Your task to perform on an android device: turn on airplane mode Image 0: 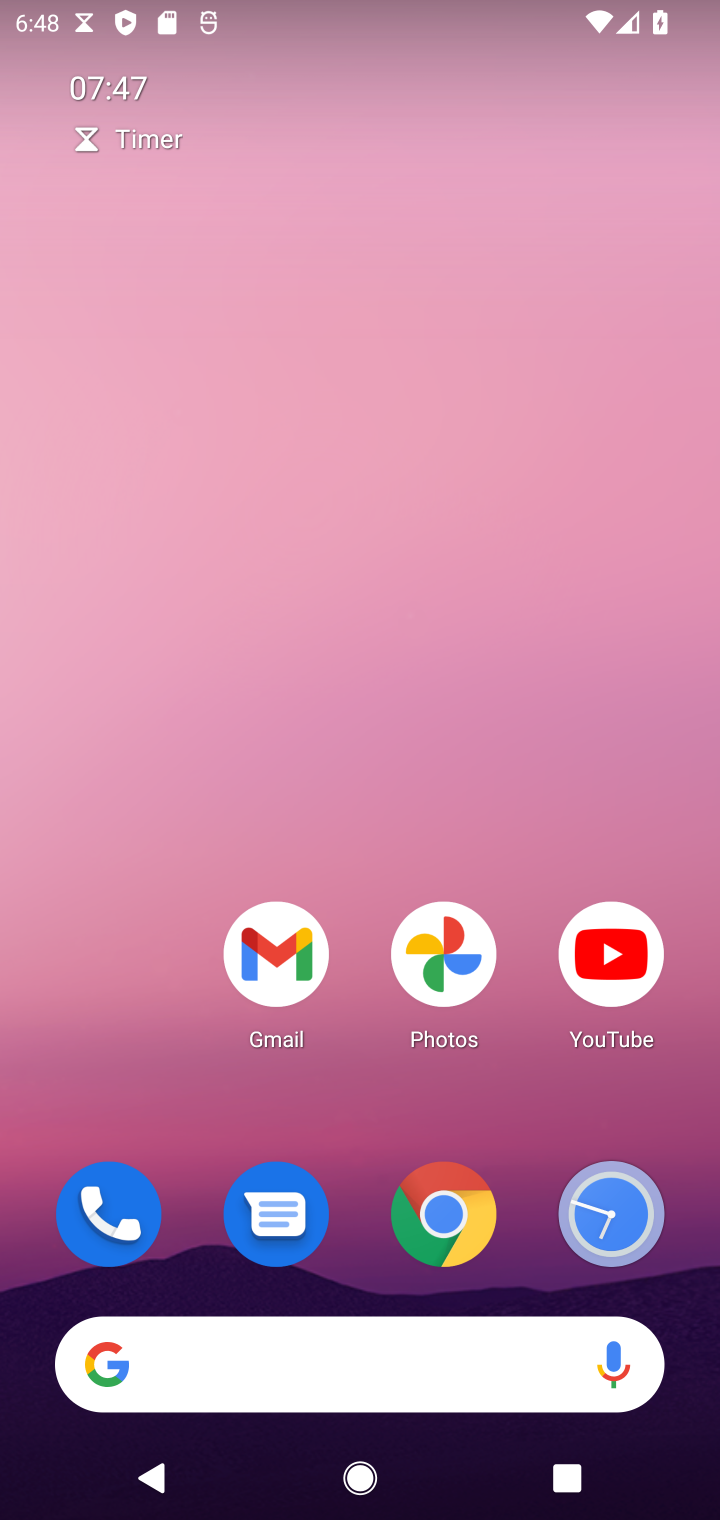
Step 0: drag from (359, 1238) to (385, 209)
Your task to perform on an android device: turn on airplane mode Image 1: 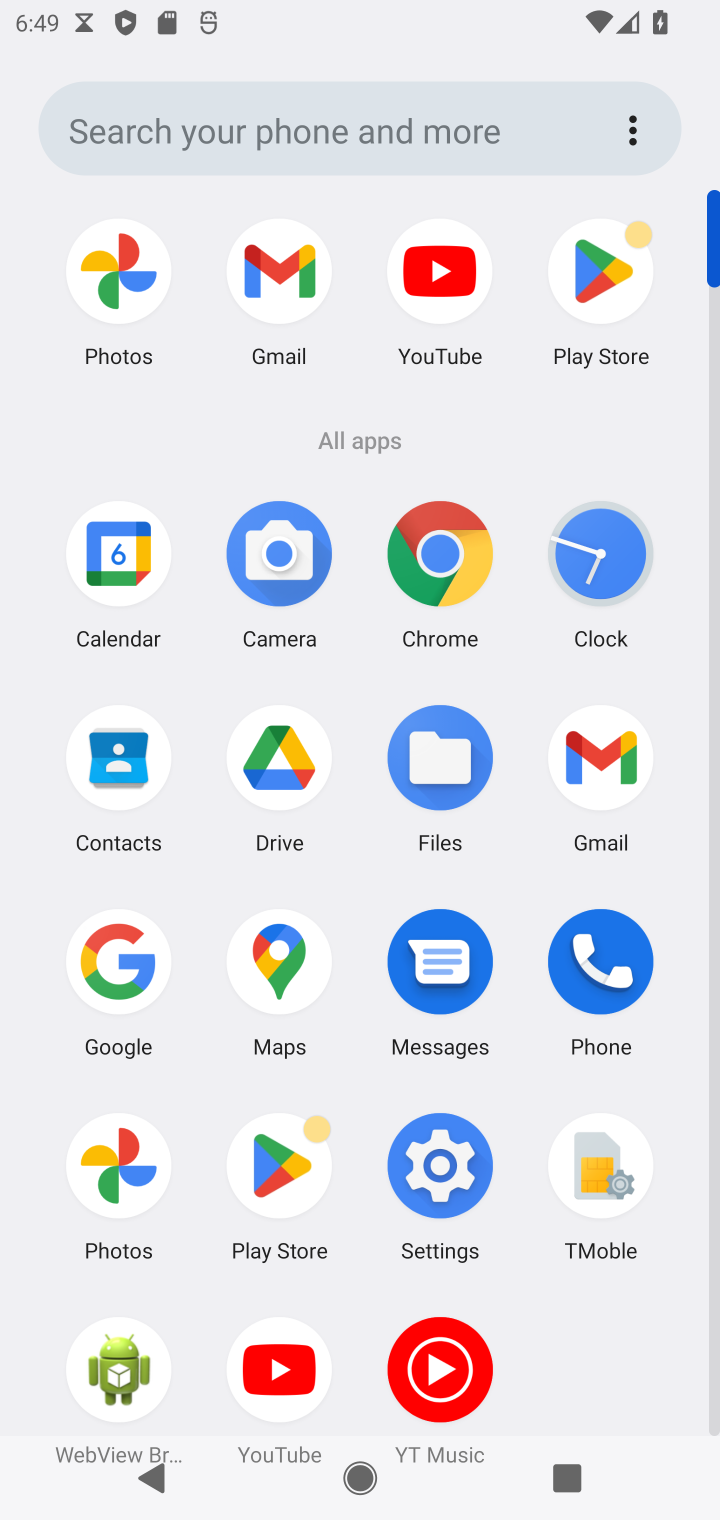
Step 1: click (452, 1199)
Your task to perform on an android device: turn on airplane mode Image 2: 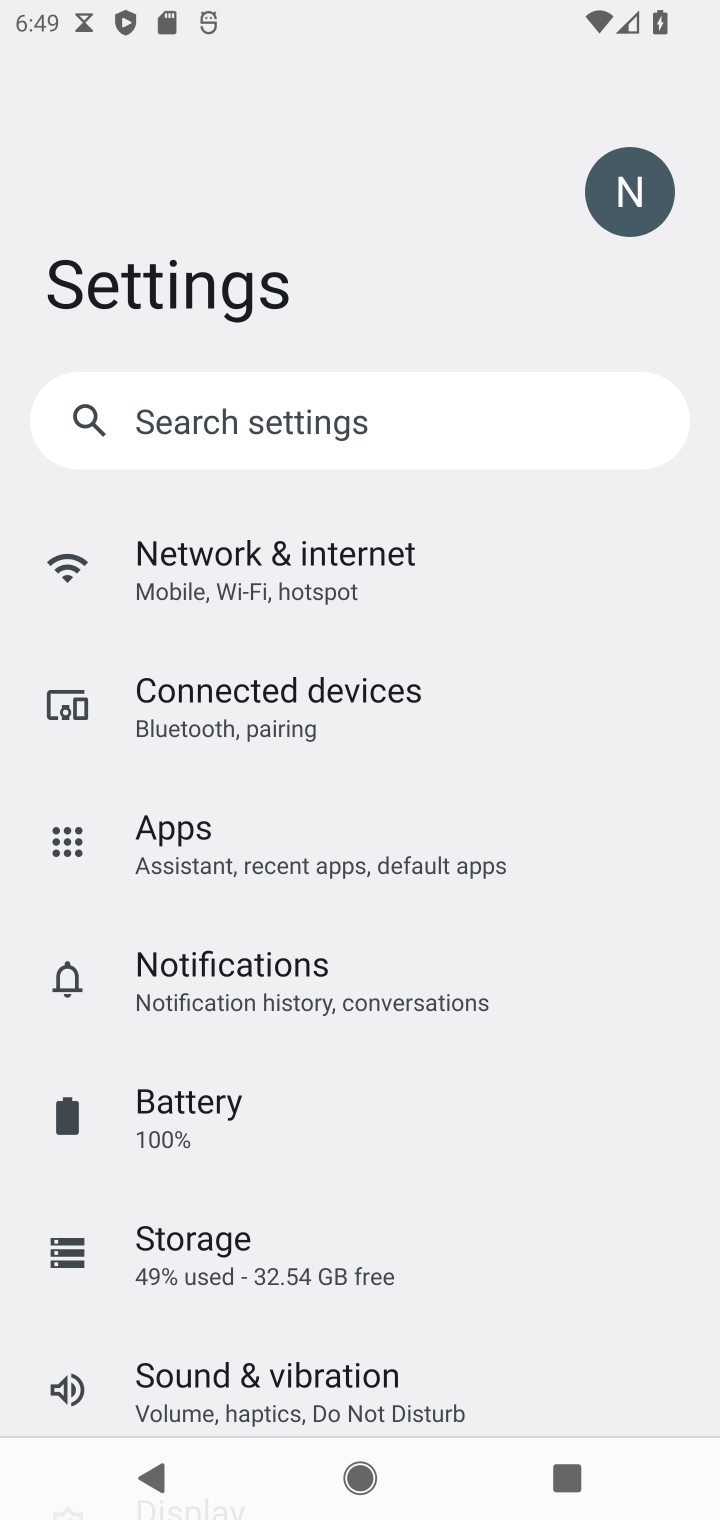
Step 2: click (322, 582)
Your task to perform on an android device: turn on airplane mode Image 3: 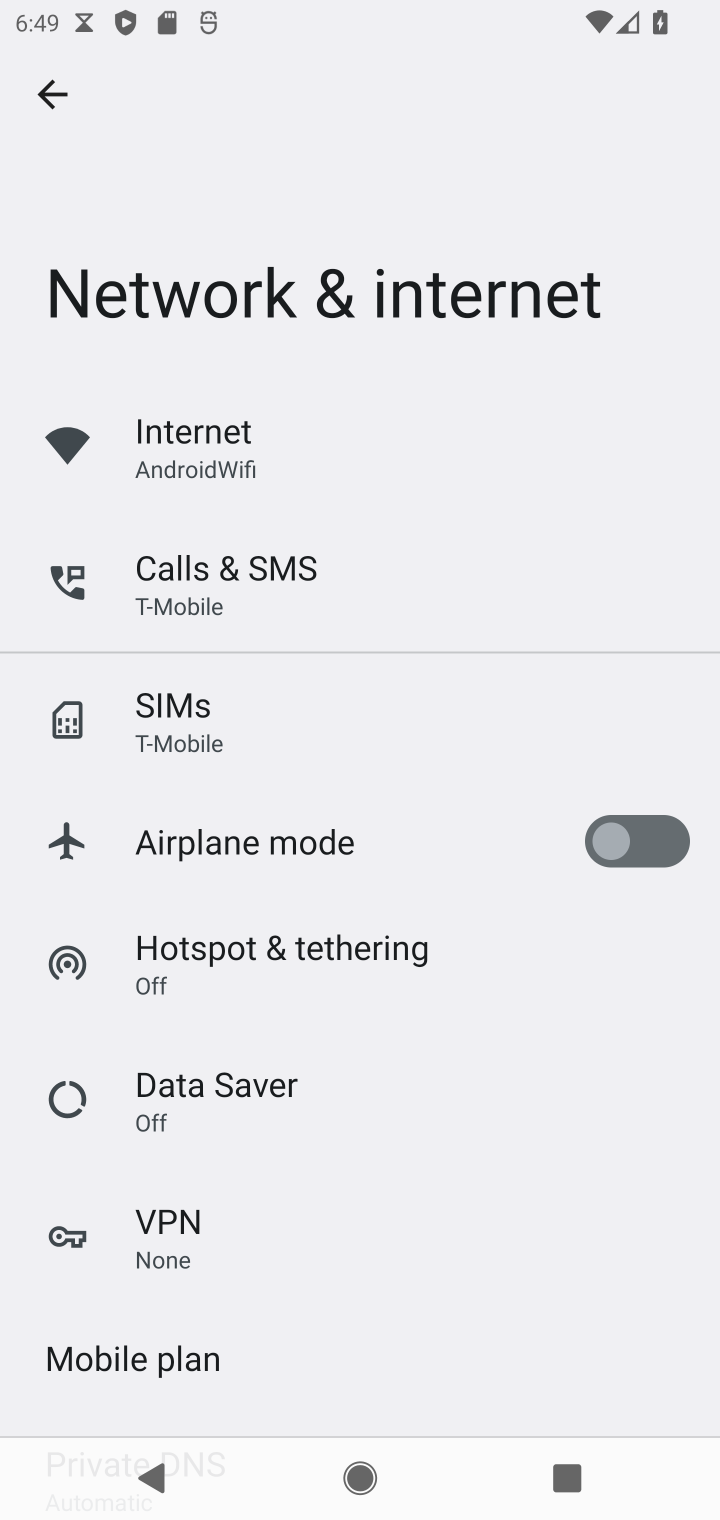
Step 3: click (684, 837)
Your task to perform on an android device: turn on airplane mode Image 4: 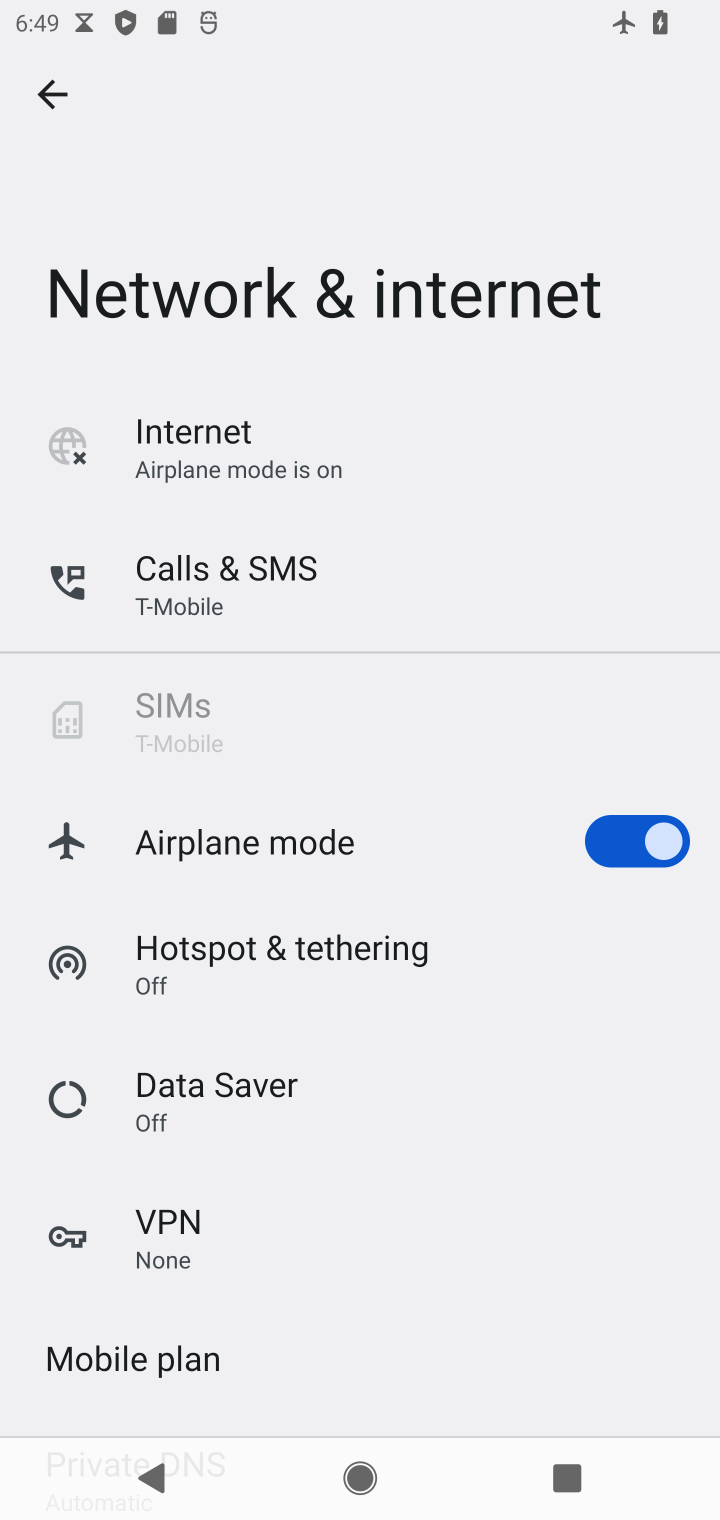
Step 4: task complete